Your task to perform on an android device: check the backup settings in the google photos Image 0: 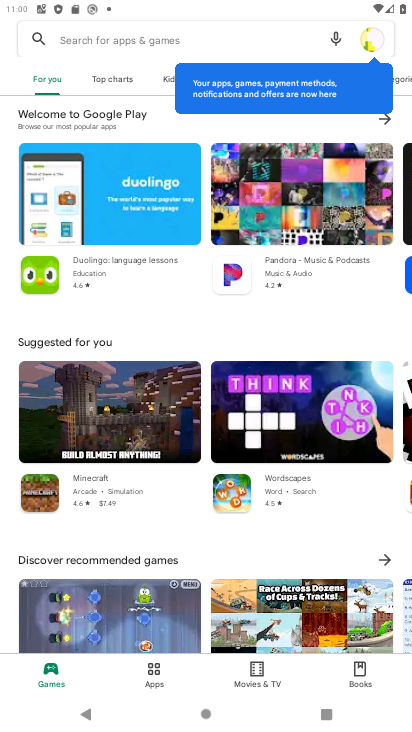
Step 0: press home button
Your task to perform on an android device: check the backup settings in the google photos Image 1: 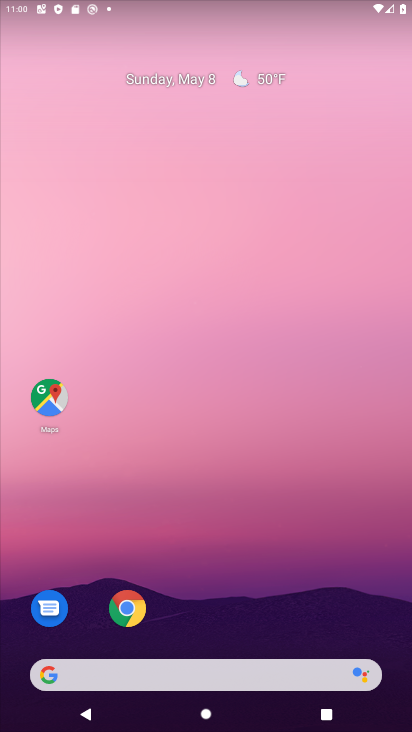
Step 1: drag from (308, 602) to (176, 8)
Your task to perform on an android device: check the backup settings in the google photos Image 2: 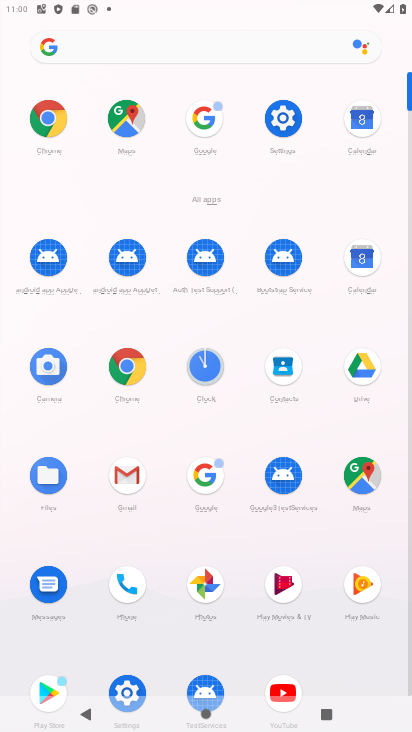
Step 2: click (207, 588)
Your task to perform on an android device: check the backup settings in the google photos Image 3: 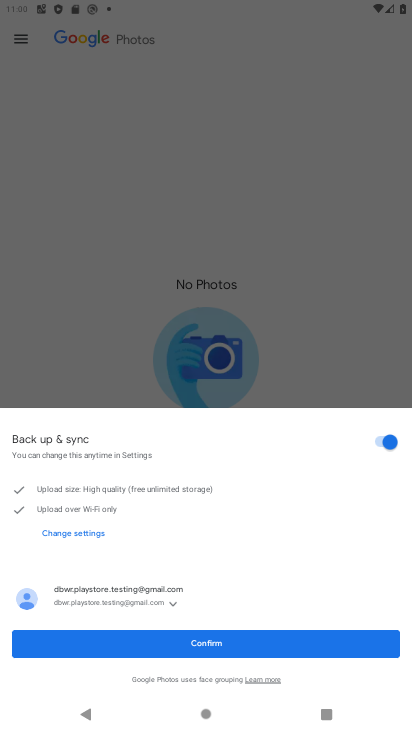
Step 3: click (184, 650)
Your task to perform on an android device: check the backup settings in the google photos Image 4: 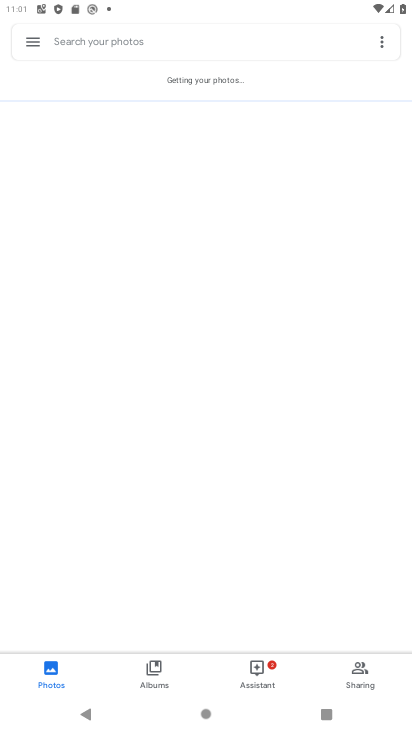
Step 4: click (21, 41)
Your task to perform on an android device: check the backup settings in the google photos Image 5: 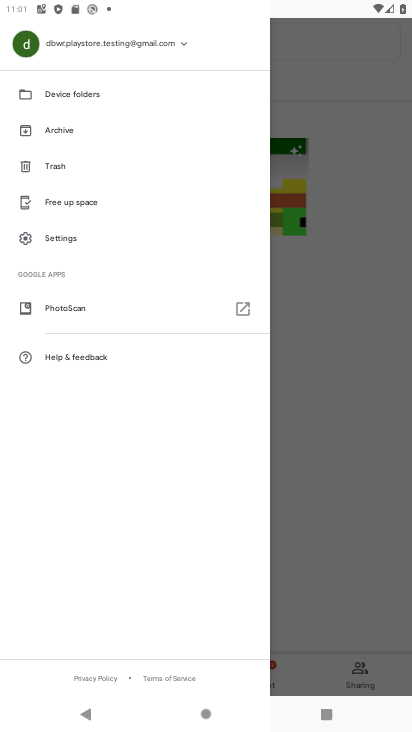
Step 5: click (47, 233)
Your task to perform on an android device: check the backup settings in the google photos Image 6: 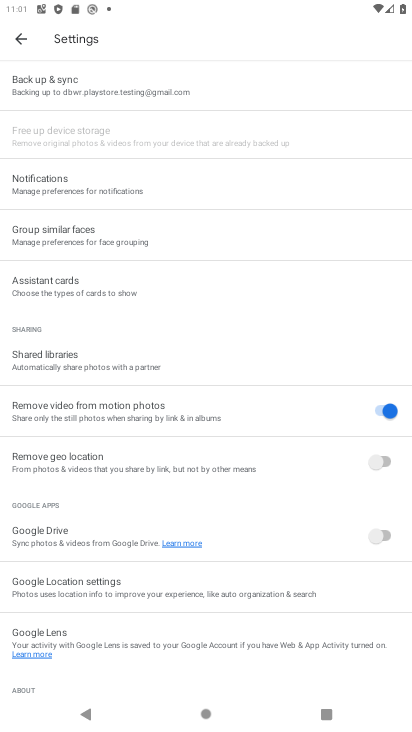
Step 6: click (38, 78)
Your task to perform on an android device: check the backup settings in the google photos Image 7: 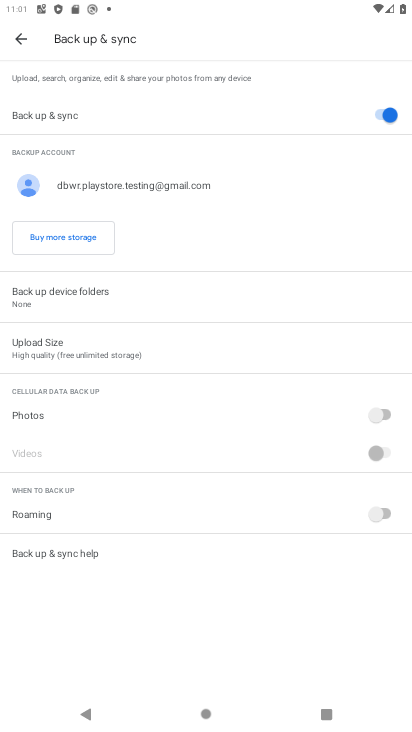
Step 7: task complete